Your task to perform on an android device: change notifications settings Image 0: 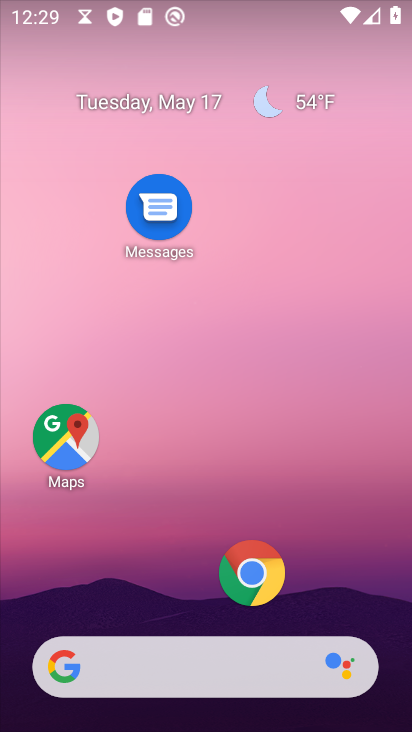
Step 0: drag from (190, 611) to (216, 36)
Your task to perform on an android device: change notifications settings Image 1: 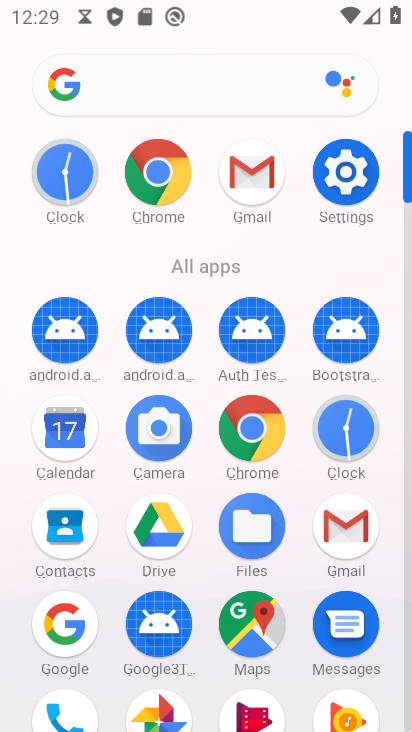
Step 1: click (345, 168)
Your task to perform on an android device: change notifications settings Image 2: 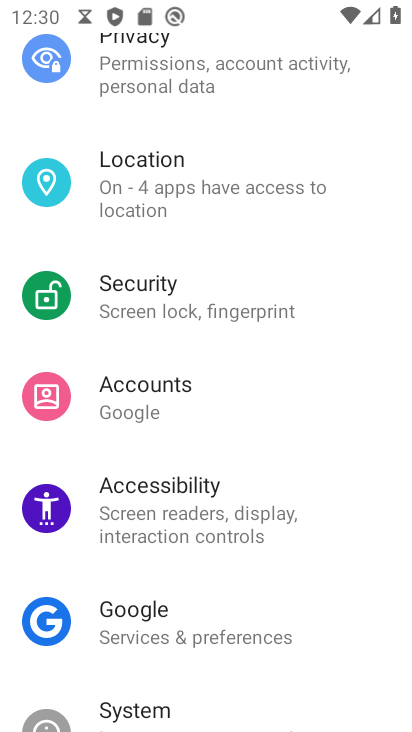
Step 2: drag from (236, 98) to (237, 505)
Your task to perform on an android device: change notifications settings Image 3: 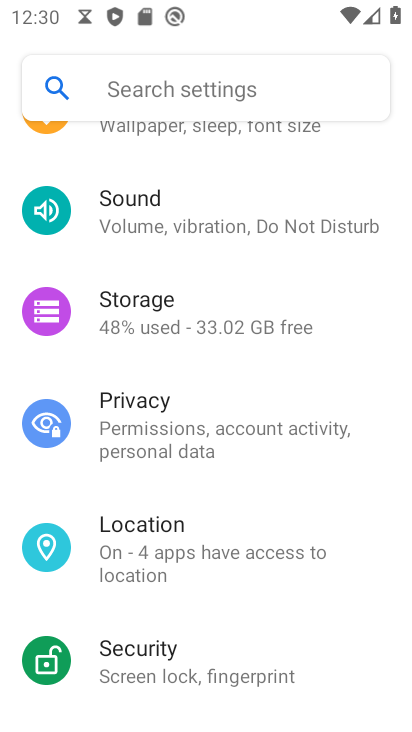
Step 3: drag from (178, 159) to (236, 714)
Your task to perform on an android device: change notifications settings Image 4: 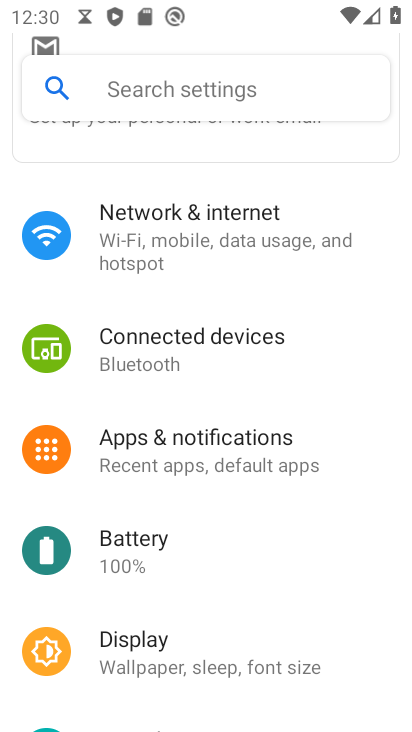
Step 4: click (207, 452)
Your task to perform on an android device: change notifications settings Image 5: 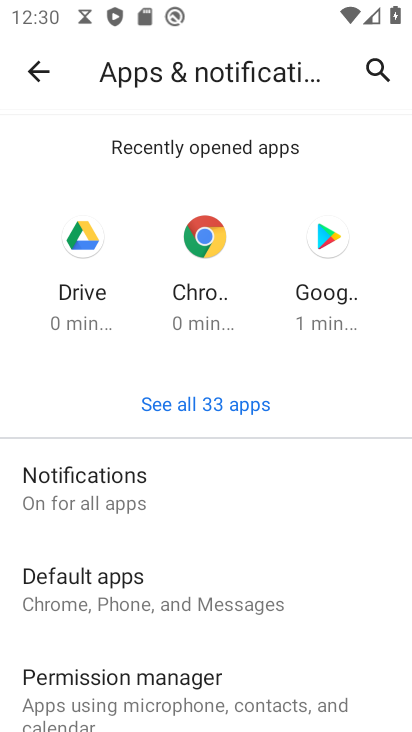
Step 5: click (146, 469)
Your task to perform on an android device: change notifications settings Image 6: 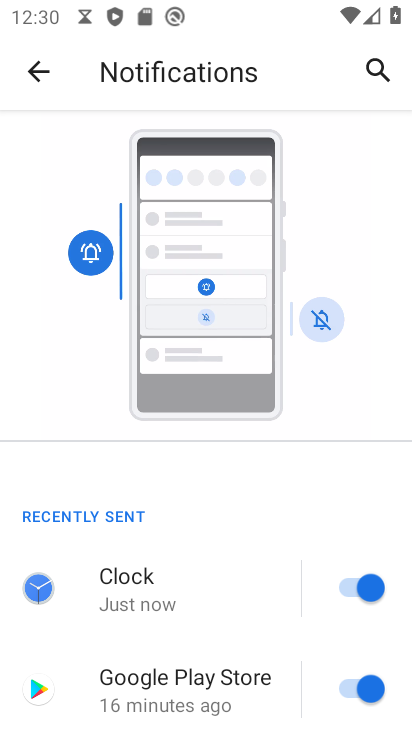
Step 6: drag from (183, 666) to (237, 241)
Your task to perform on an android device: change notifications settings Image 7: 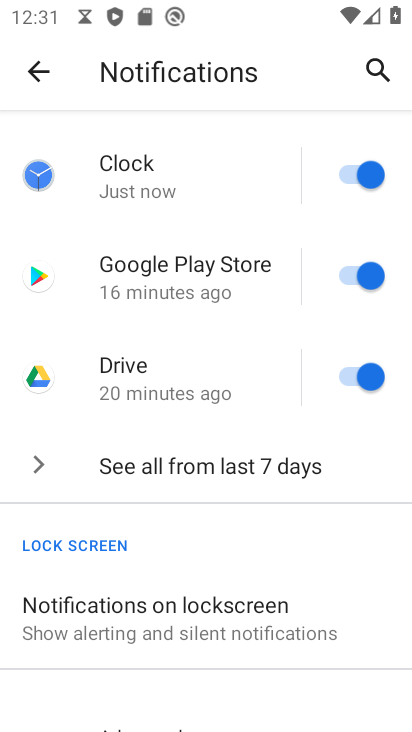
Step 7: click (349, 175)
Your task to perform on an android device: change notifications settings Image 8: 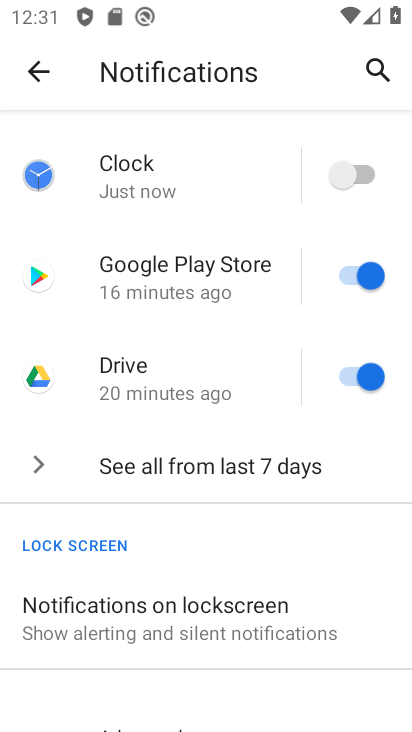
Step 8: click (357, 272)
Your task to perform on an android device: change notifications settings Image 9: 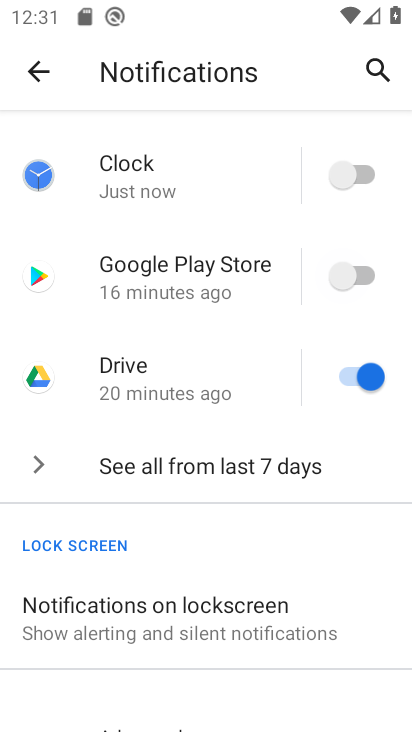
Step 9: click (362, 373)
Your task to perform on an android device: change notifications settings Image 10: 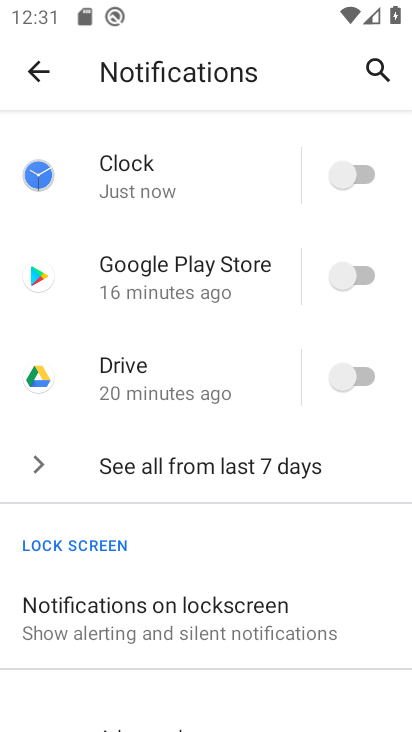
Step 10: click (223, 626)
Your task to perform on an android device: change notifications settings Image 11: 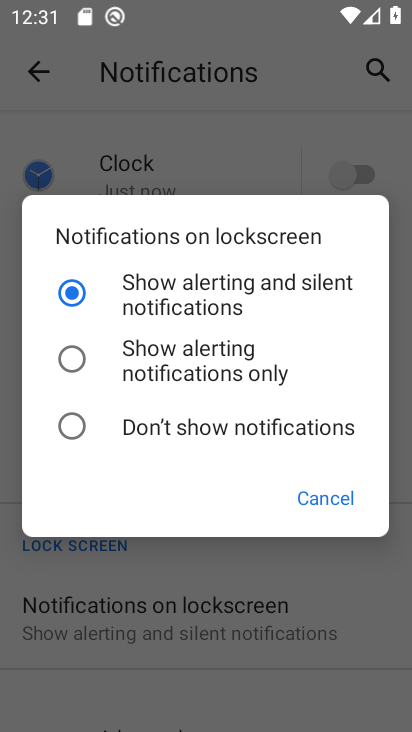
Step 11: click (72, 355)
Your task to perform on an android device: change notifications settings Image 12: 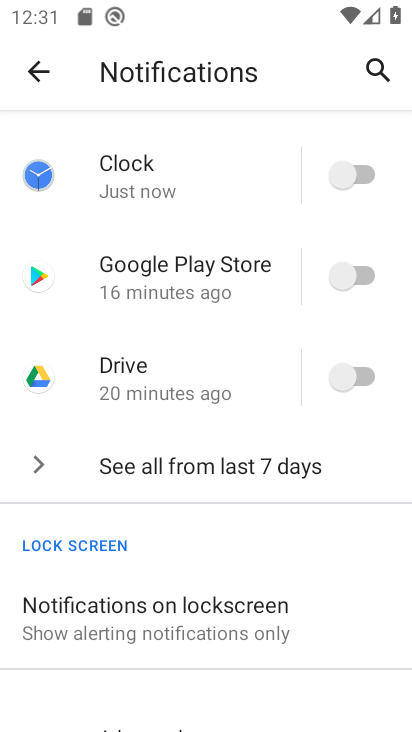
Step 12: click (195, 621)
Your task to perform on an android device: change notifications settings Image 13: 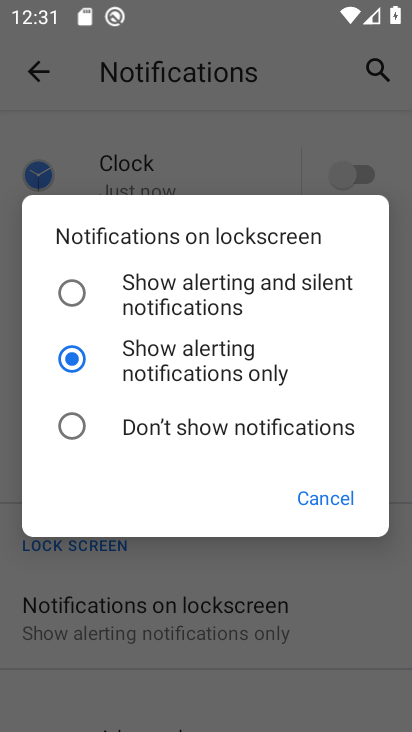
Step 13: task complete